Your task to perform on an android device: toggle sleep mode Image 0: 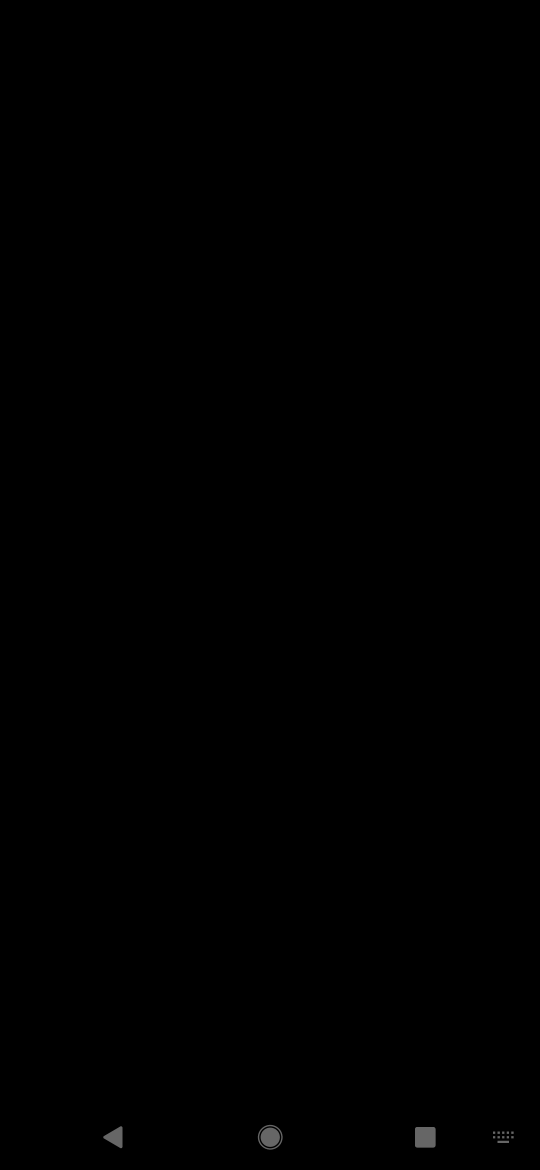
Step 0: press back button
Your task to perform on an android device: toggle sleep mode Image 1: 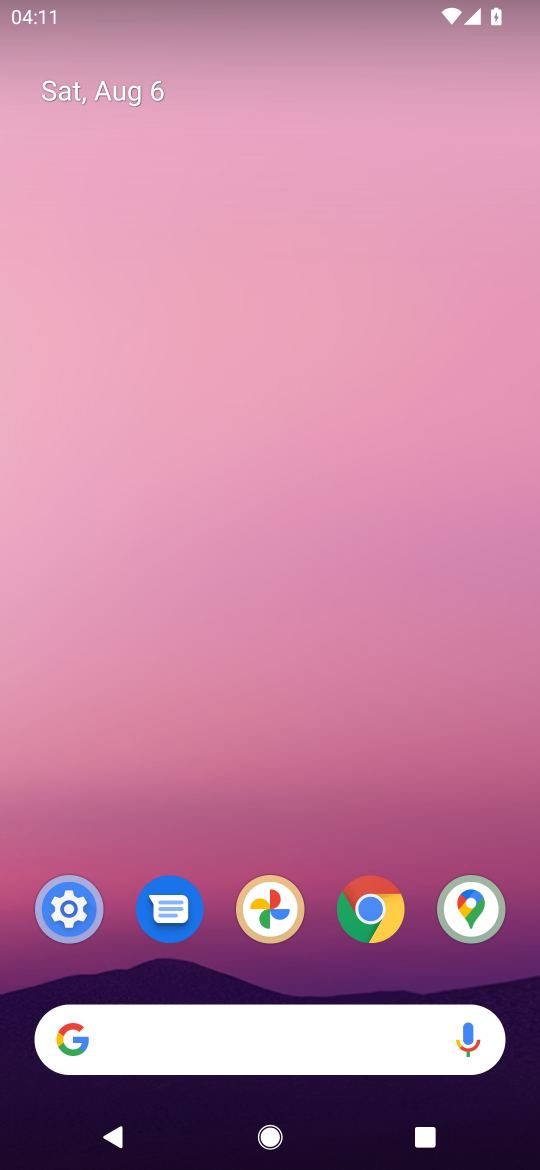
Step 1: drag from (209, 822) to (343, 13)
Your task to perform on an android device: toggle sleep mode Image 2: 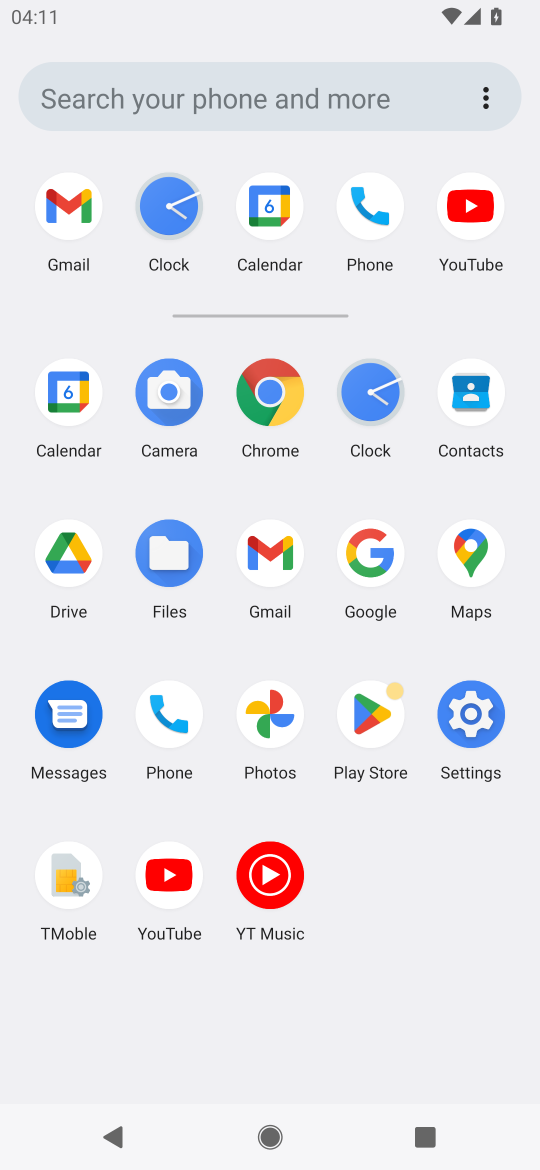
Step 2: click (474, 717)
Your task to perform on an android device: toggle sleep mode Image 3: 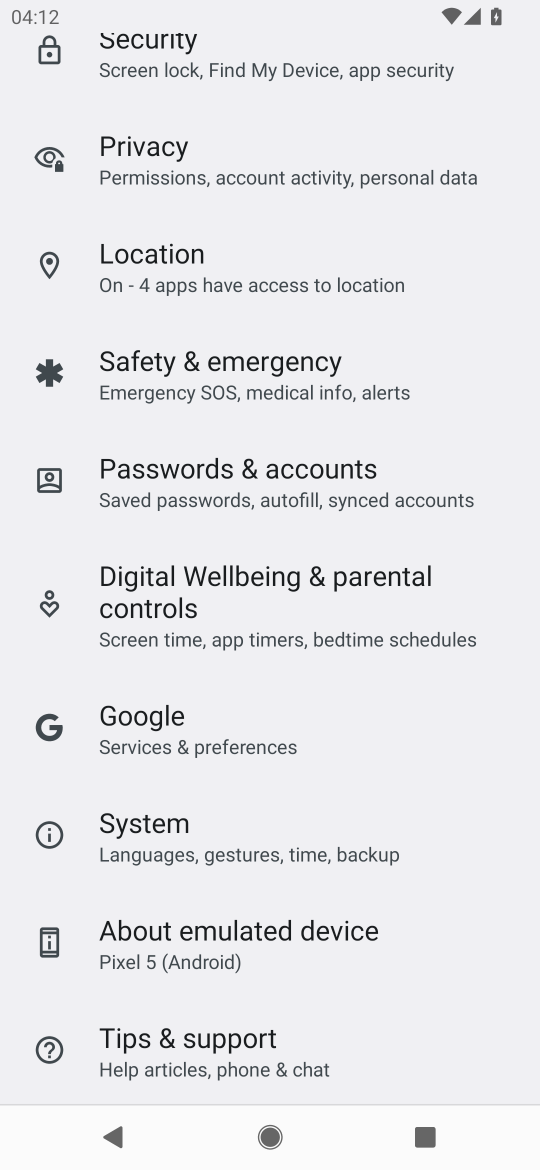
Step 3: drag from (336, 287) to (291, 1162)
Your task to perform on an android device: toggle sleep mode Image 4: 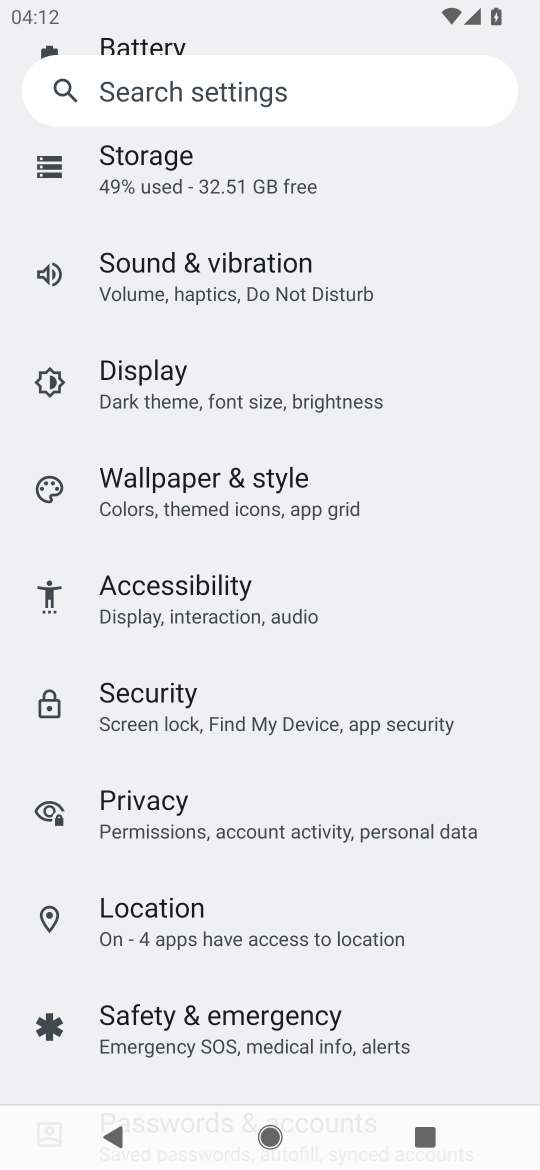
Step 4: click (245, 95)
Your task to perform on an android device: toggle sleep mode Image 5: 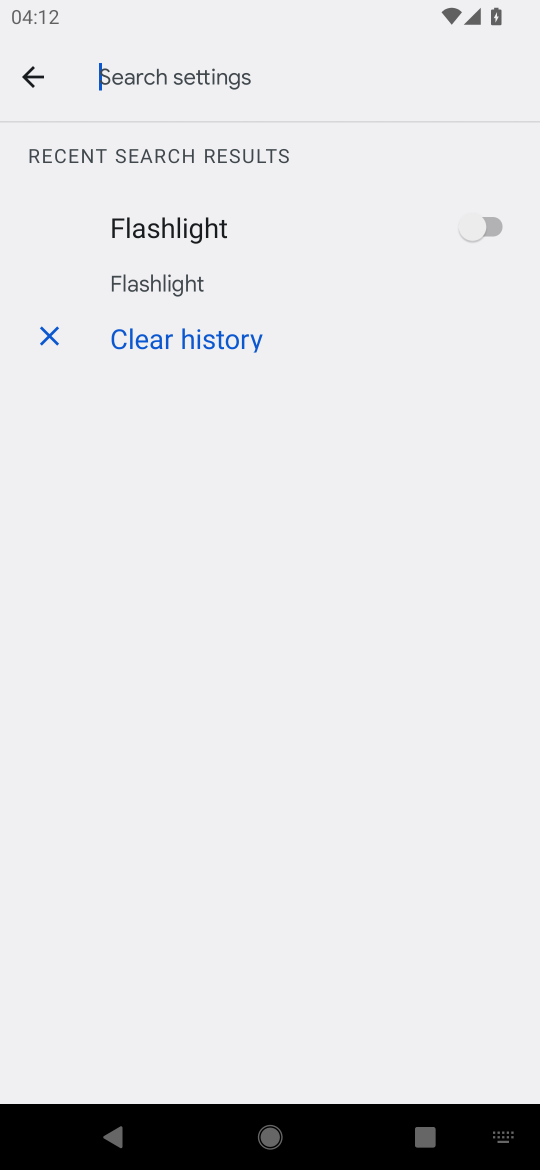
Step 5: type "sleep mode"
Your task to perform on an android device: toggle sleep mode Image 6: 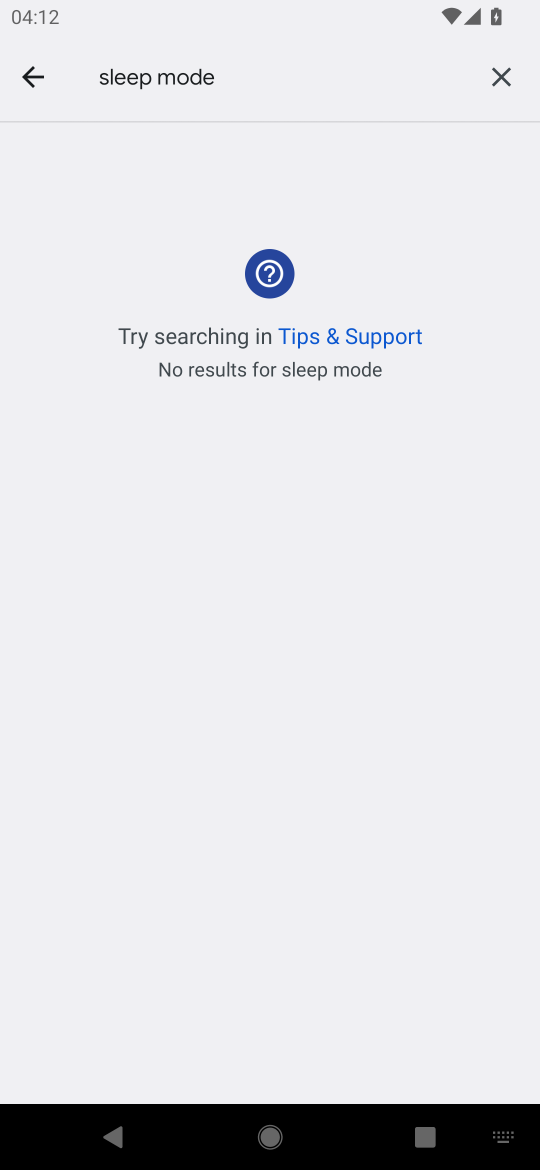
Step 6: task complete